Your task to perform on an android device: read, delete, or share a saved page in the chrome app Image 0: 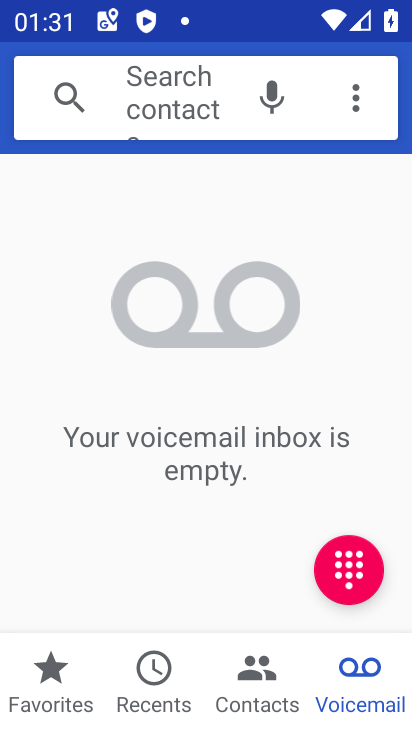
Step 0: press home button
Your task to perform on an android device: read, delete, or share a saved page in the chrome app Image 1: 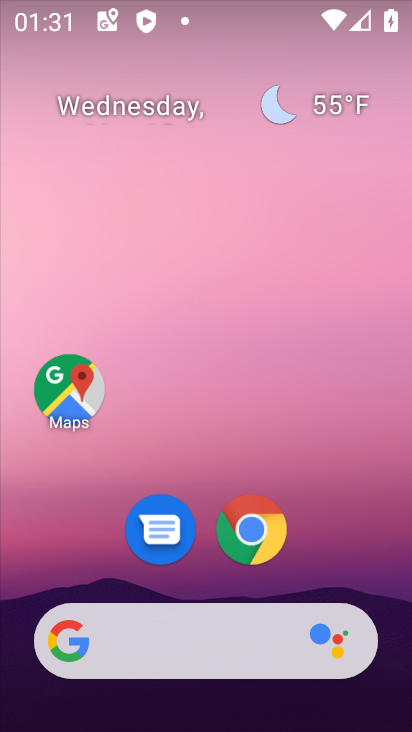
Step 1: drag from (203, 709) to (203, 230)
Your task to perform on an android device: read, delete, or share a saved page in the chrome app Image 2: 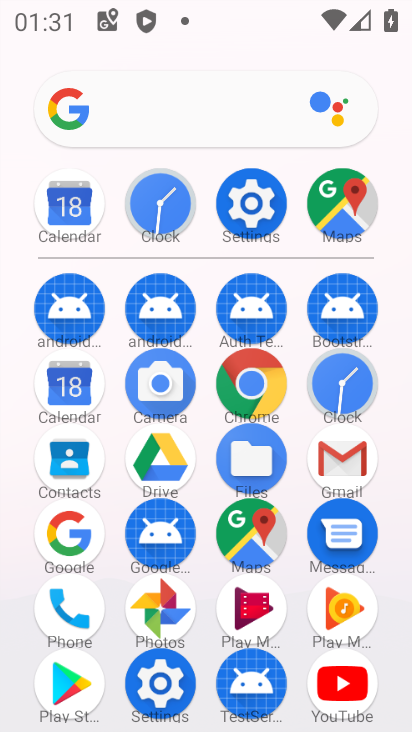
Step 2: click (253, 385)
Your task to perform on an android device: read, delete, or share a saved page in the chrome app Image 3: 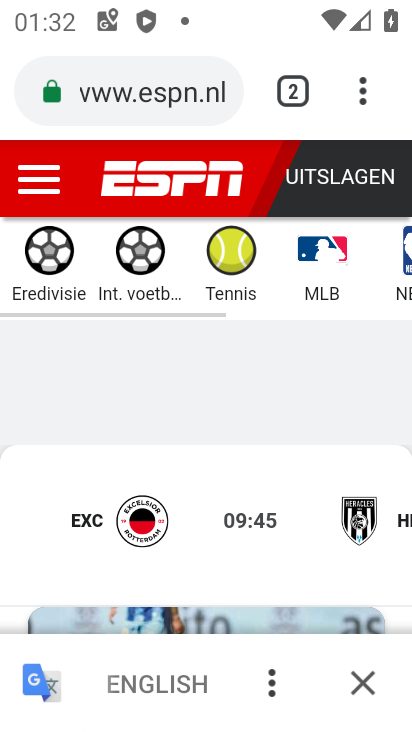
Step 3: click (362, 101)
Your task to perform on an android device: read, delete, or share a saved page in the chrome app Image 4: 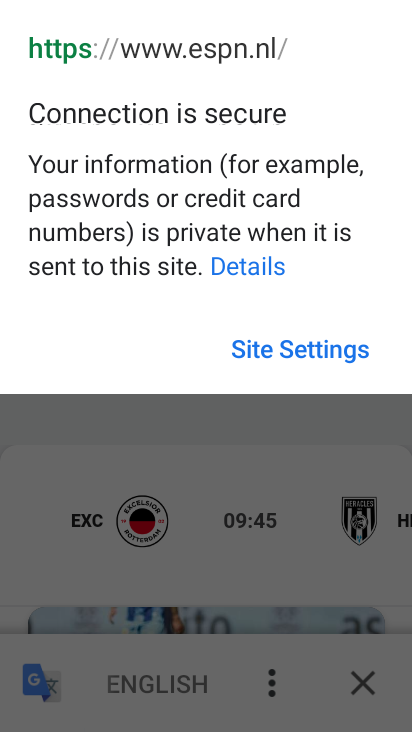
Step 4: click (257, 417)
Your task to perform on an android device: read, delete, or share a saved page in the chrome app Image 5: 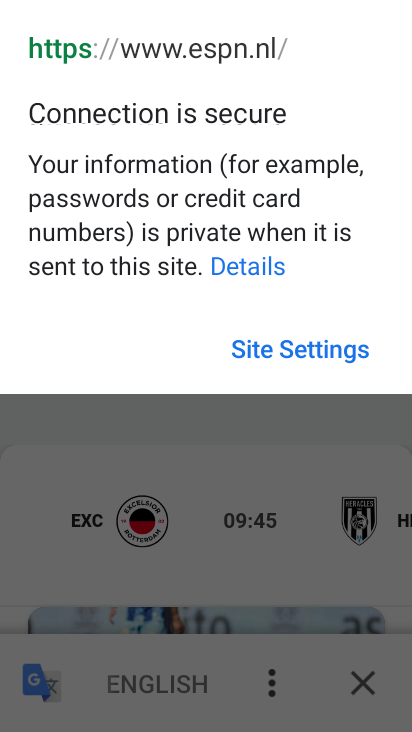
Step 5: click (95, 423)
Your task to perform on an android device: read, delete, or share a saved page in the chrome app Image 6: 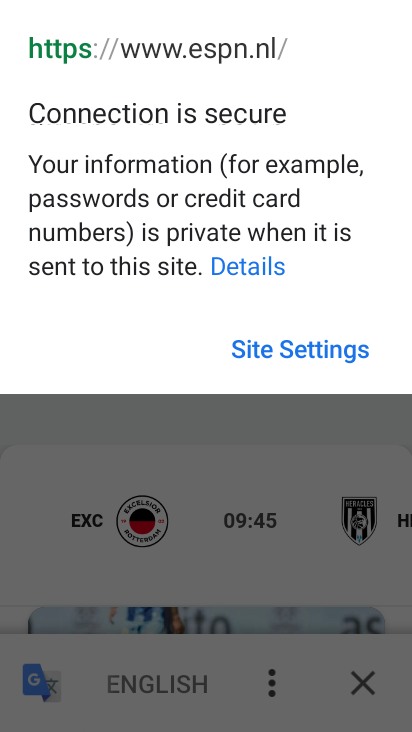
Step 6: click (348, 38)
Your task to perform on an android device: read, delete, or share a saved page in the chrome app Image 7: 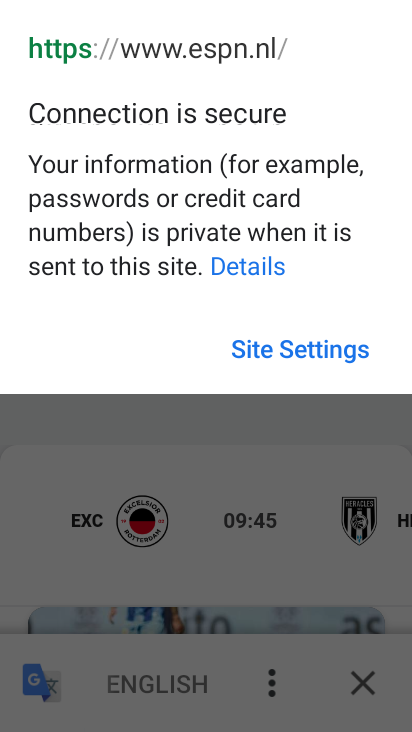
Step 7: click (201, 462)
Your task to perform on an android device: read, delete, or share a saved page in the chrome app Image 8: 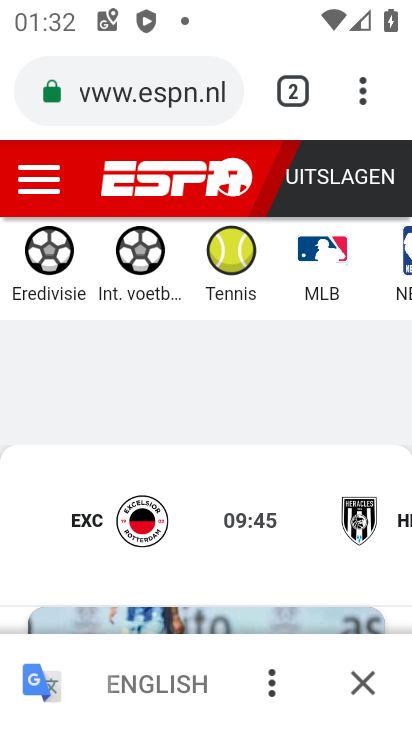
Step 8: click (366, 101)
Your task to perform on an android device: read, delete, or share a saved page in the chrome app Image 9: 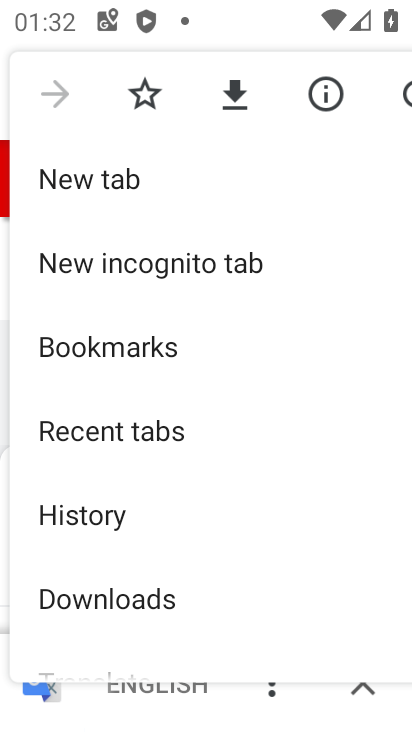
Step 9: click (101, 602)
Your task to perform on an android device: read, delete, or share a saved page in the chrome app Image 10: 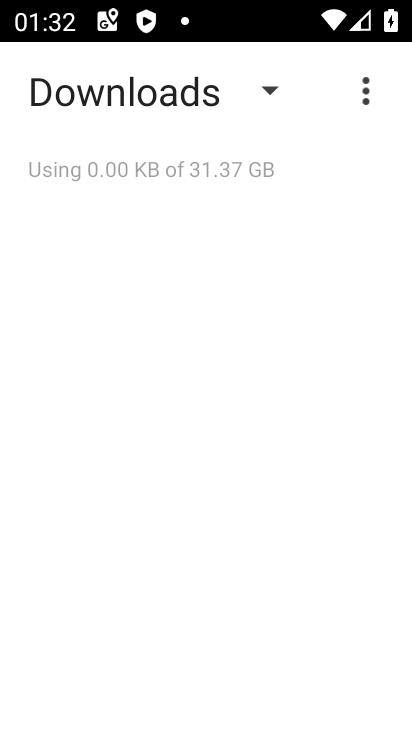
Step 10: click (270, 89)
Your task to perform on an android device: read, delete, or share a saved page in the chrome app Image 11: 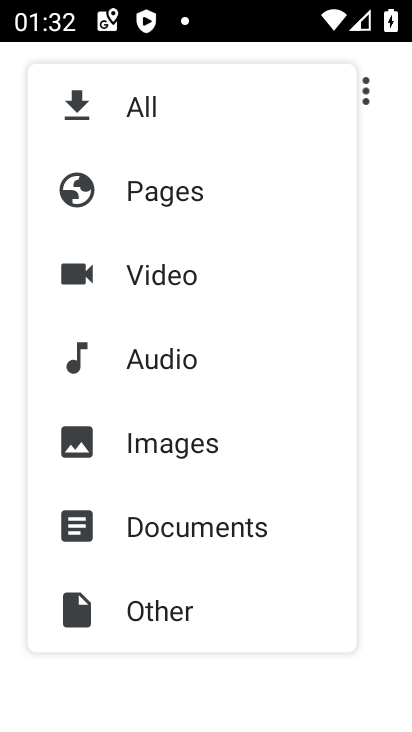
Step 11: click (166, 184)
Your task to perform on an android device: read, delete, or share a saved page in the chrome app Image 12: 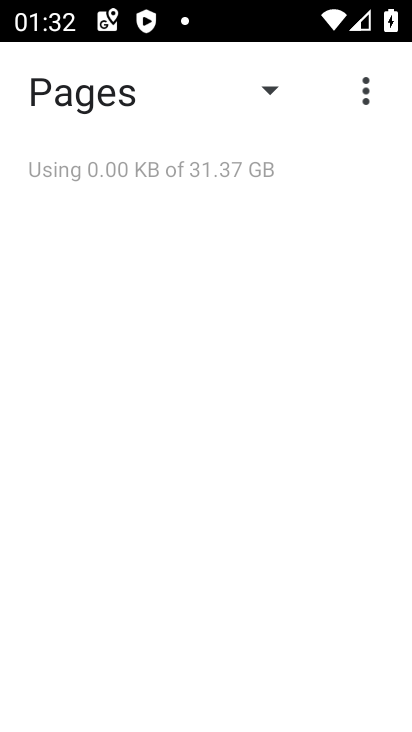
Step 12: task complete